Your task to perform on an android device: install app "Google Keep" Image 0: 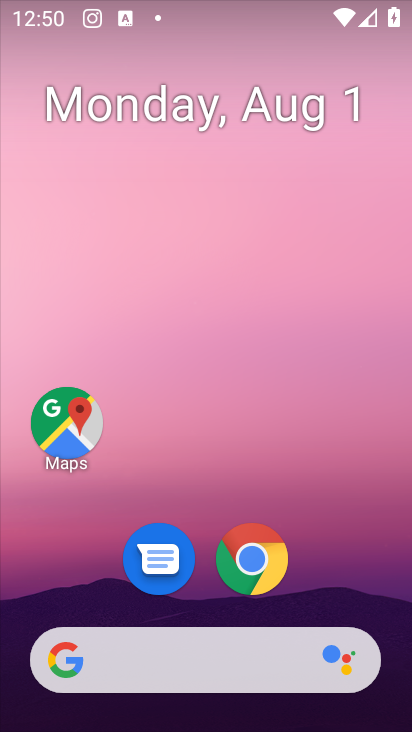
Step 0: drag from (79, 578) to (236, 113)
Your task to perform on an android device: install app "Google Keep" Image 1: 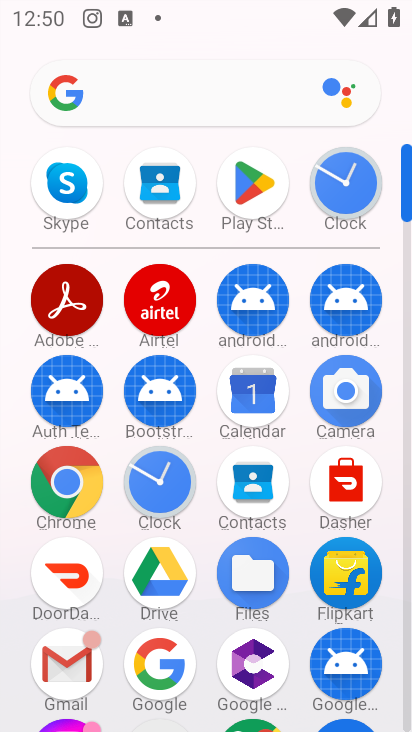
Step 1: click (256, 180)
Your task to perform on an android device: install app "Google Keep" Image 2: 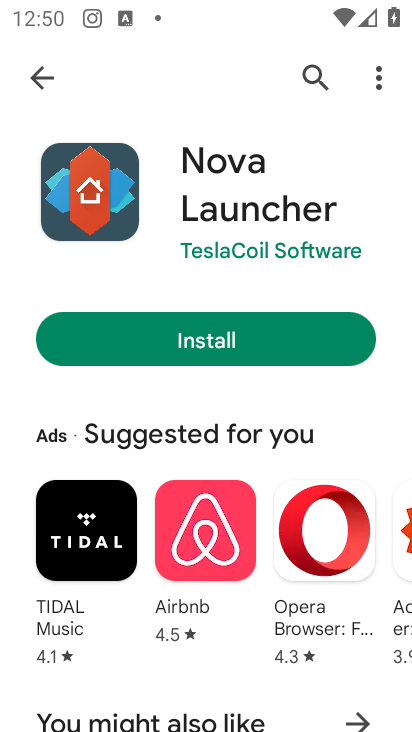
Step 2: click (314, 75)
Your task to perform on an android device: install app "Google Keep" Image 3: 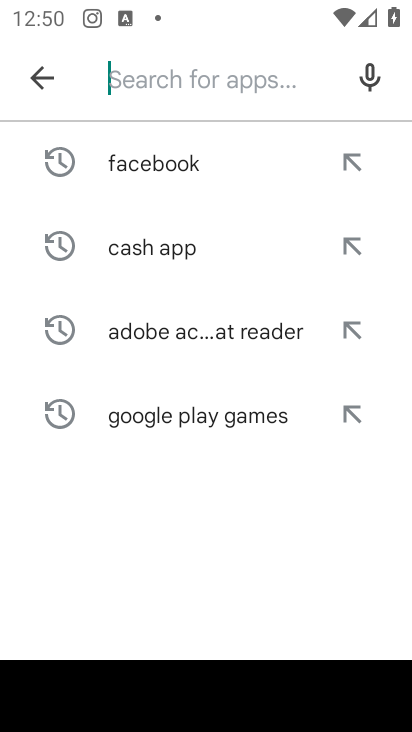
Step 3: click (166, 93)
Your task to perform on an android device: install app "Google Keep" Image 4: 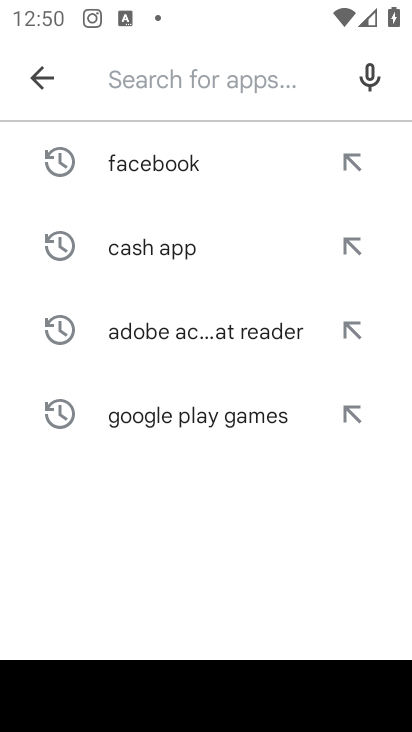
Step 4: type "google keep"
Your task to perform on an android device: install app "Google Keep" Image 5: 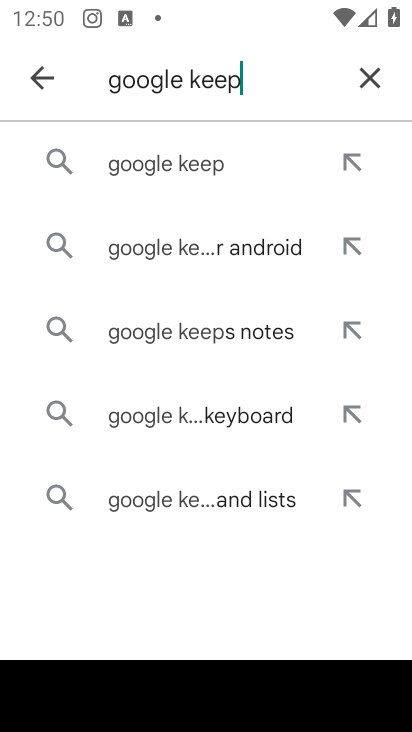
Step 5: click (136, 169)
Your task to perform on an android device: install app "Google Keep" Image 6: 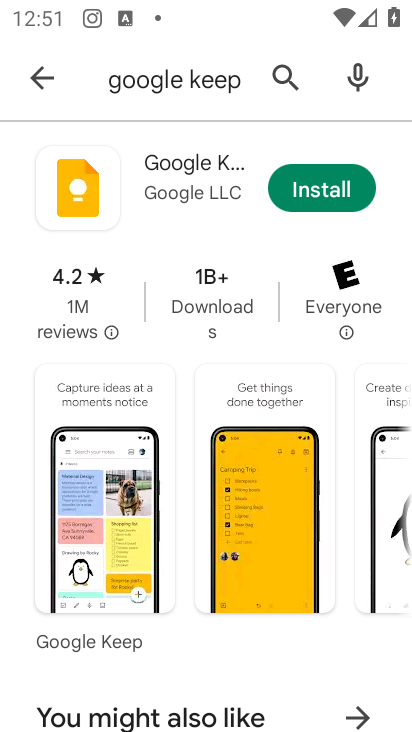
Step 6: click (313, 182)
Your task to perform on an android device: install app "Google Keep" Image 7: 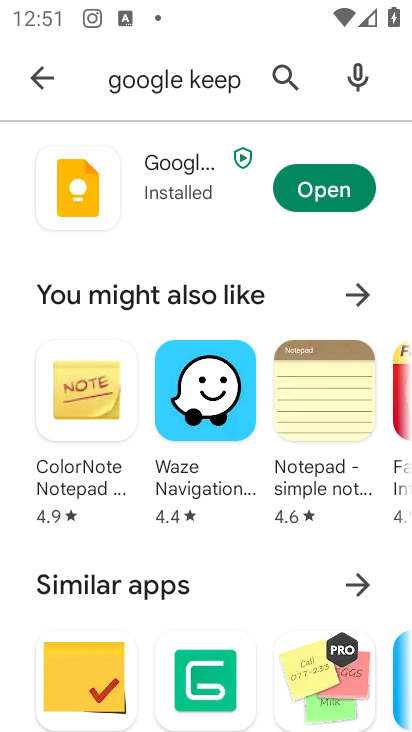
Step 7: click (296, 191)
Your task to perform on an android device: install app "Google Keep" Image 8: 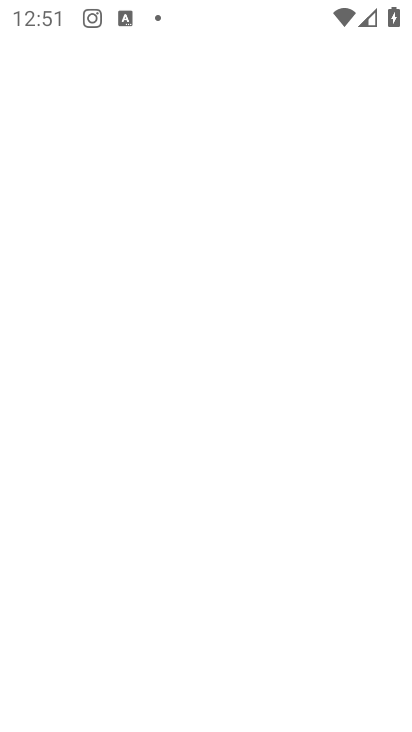
Step 8: task complete